Your task to perform on an android device: choose inbox layout in the gmail app Image 0: 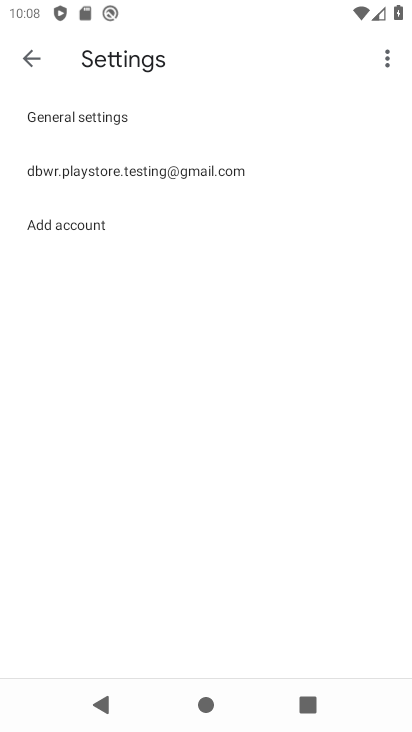
Step 0: press home button
Your task to perform on an android device: choose inbox layout in the gmail app Image 1: 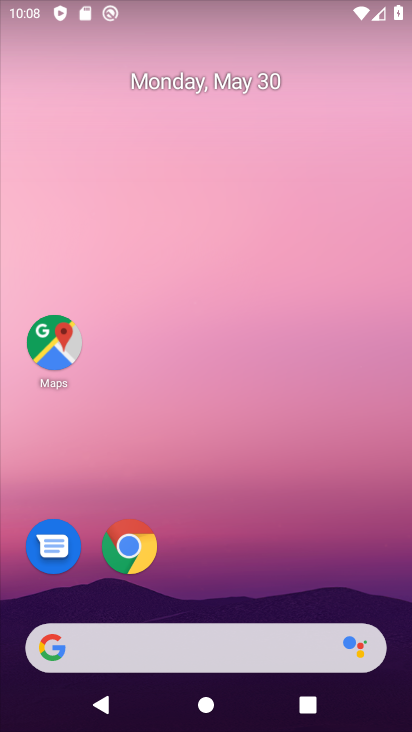
Step 1: drag from (206, 589) to (217, 15)
Your task to perform on an android device: choose inbox layout in the gmail app Image 2: 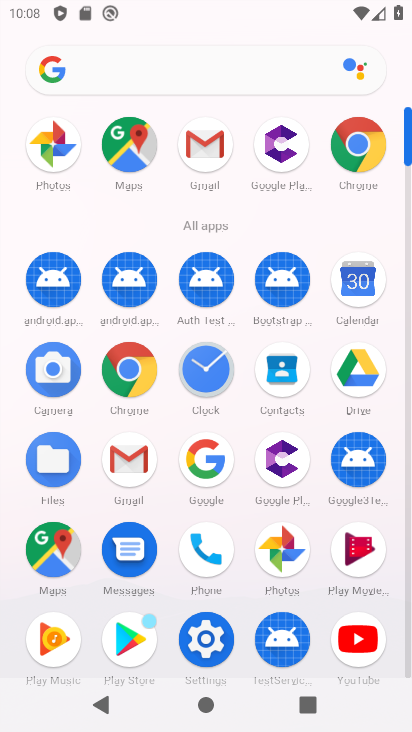
Step 2: click (203, 148)
Your task to perform on an android device: choose inbox layout in the gmail app Image 3: 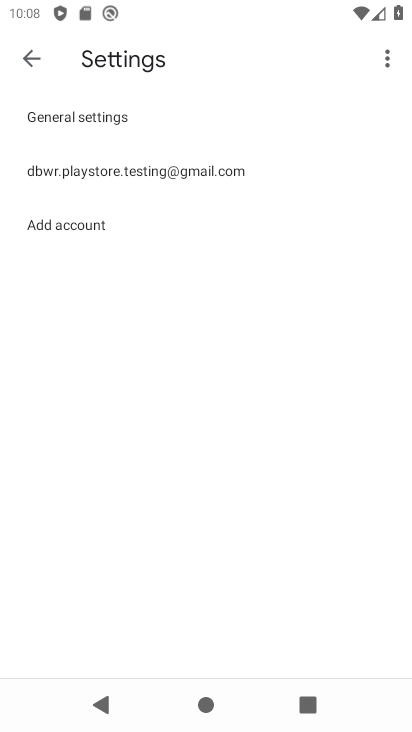
Step 3: click (216, 171)
Your task to perform on an android device: choose inbox layout in the gmail app Image 4: 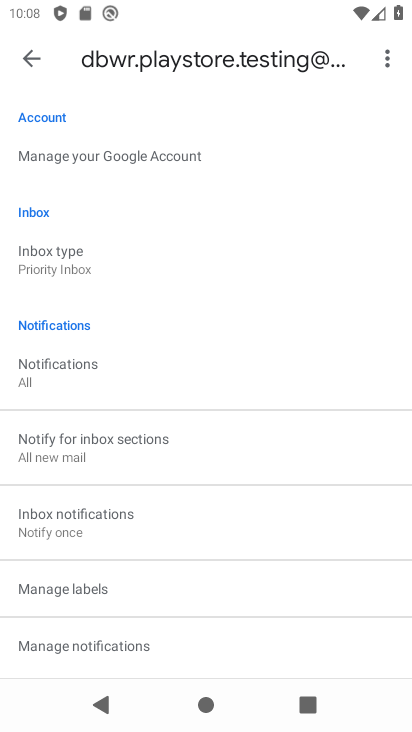
Step 4: click (59, 251)
Your task to perform on an android device: choose inbox layout in the gmail app Image 5: 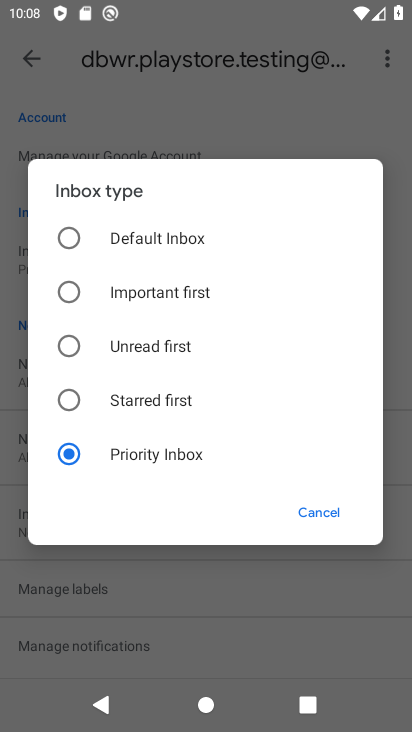
Step 5: click (122, 449)
Your task to perform on an android device: choose inbox layout in the gmail app Image 6: 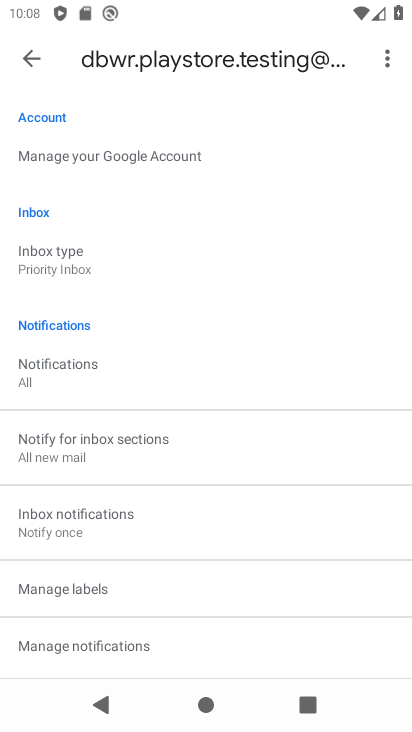
Step 6: task complete